Your task to perform on an android device: turn on notifications settings in the gmail app Image 0: 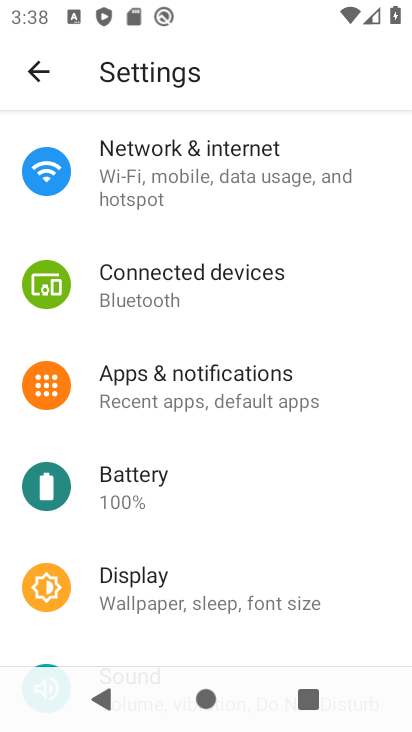
Step 0: drag from (212, 486) to (257, 194)
Your task to perform on an android device: turn on notifications settings in the gmail app Image 1: 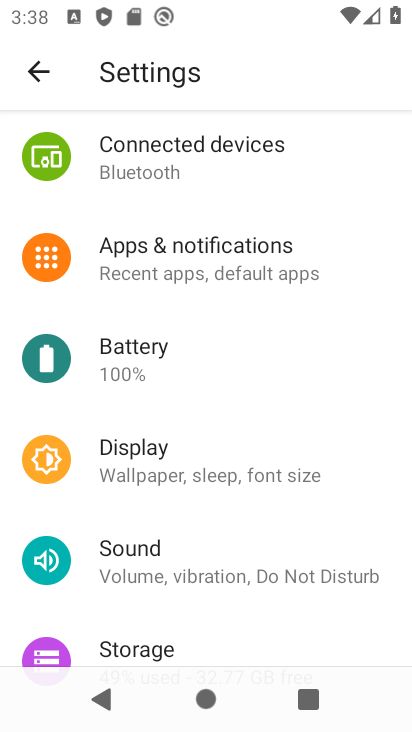
Step 1: press home button
Your task to perform on an android device: turn on notifications settings in the gmail app Image 2: 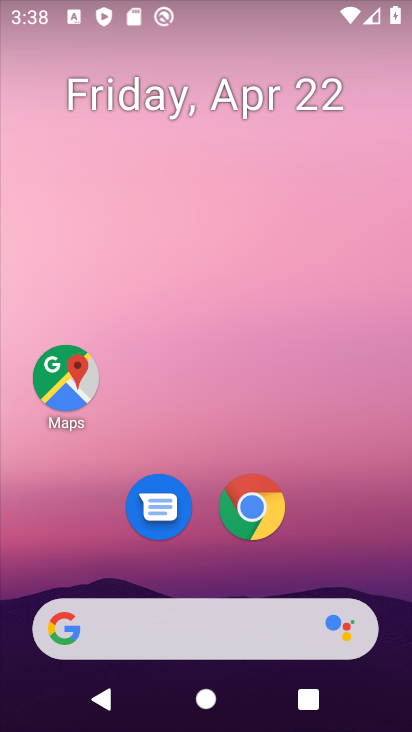
Step 2: drag from (328, 541) to (333, 65)
Your task to perform on an android device: turn on notifications settings in the gmail app Image 3: 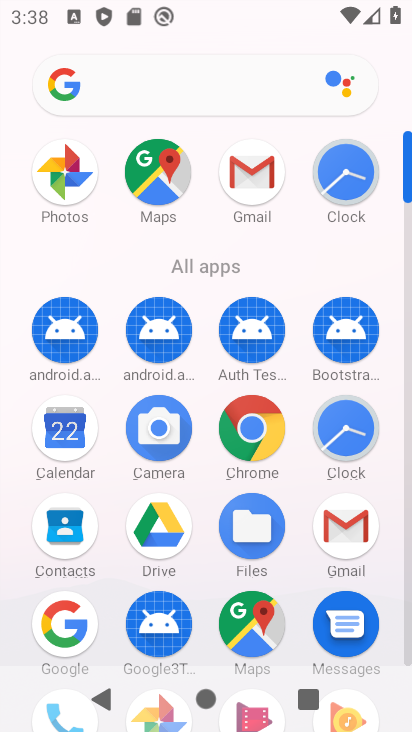
Step 3: click (342, 527)
Your task to perform on an android device: turn on notifications settings in the gmail app Image 4: 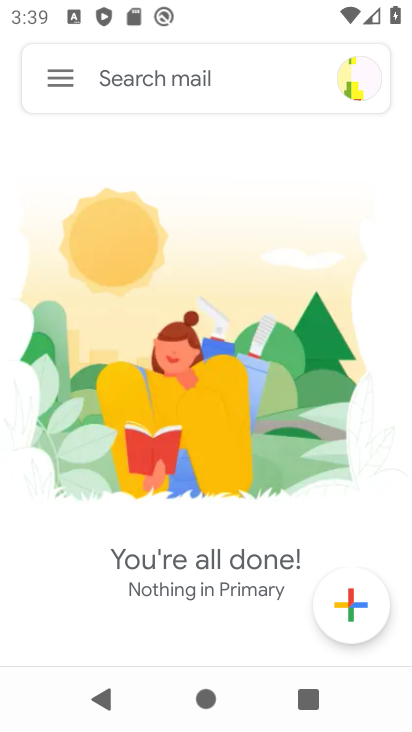
Step 4: click (58, 79)
Your task to perform on an android device: turn on notifications settings in the gmail app Image 5: 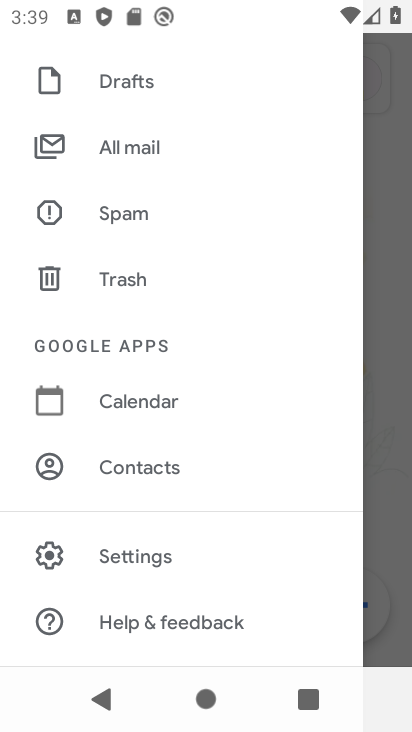
Step 5: click (125, 558)
Your task to perform on an android device: turn on notifications settings in the gmail app Image 6: 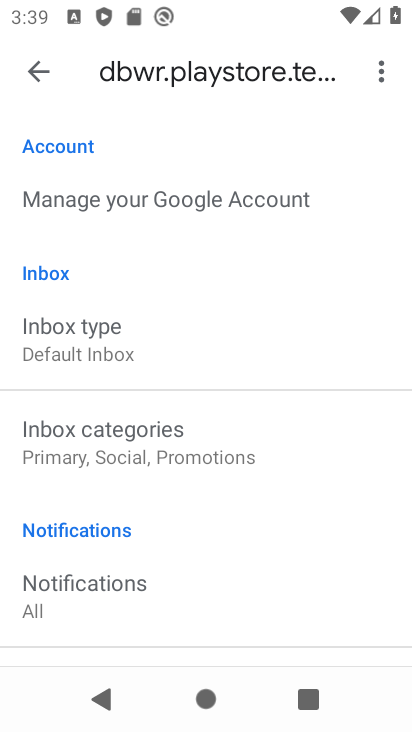
Step 6: drag from (214, 504) to (228, 269)
Your task to perform on an android device: turn on notifications settings in the gmail app Image 7: 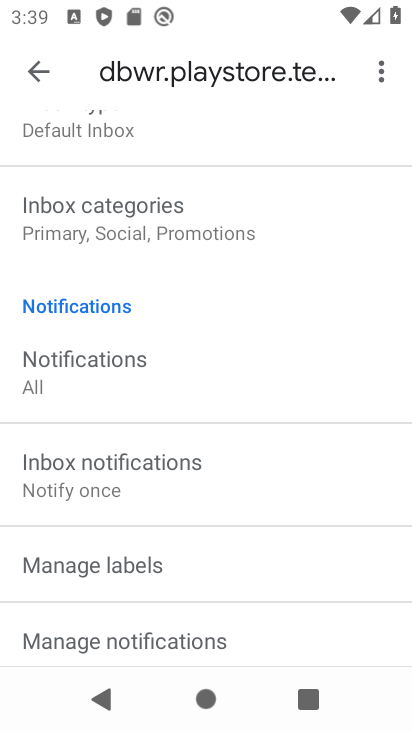
Step 7: click (109, 375)
Your task to perform on an android device: turn on notifications settings in the gmail app Image 8: 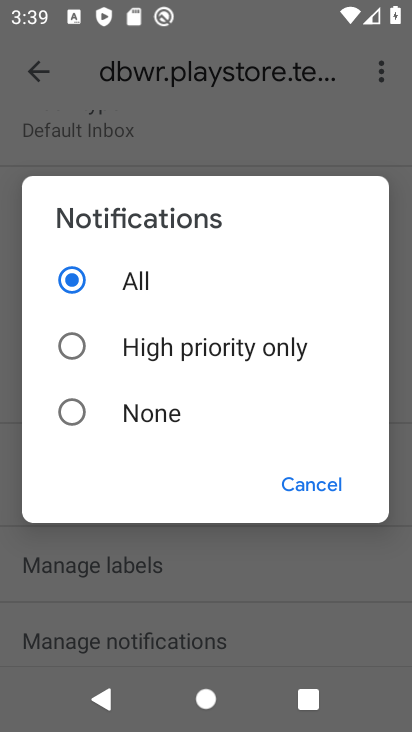
Step 8: click (64, 352)
Your task to perform on an android device: turn on notifications settings in the gmail app Image 9: 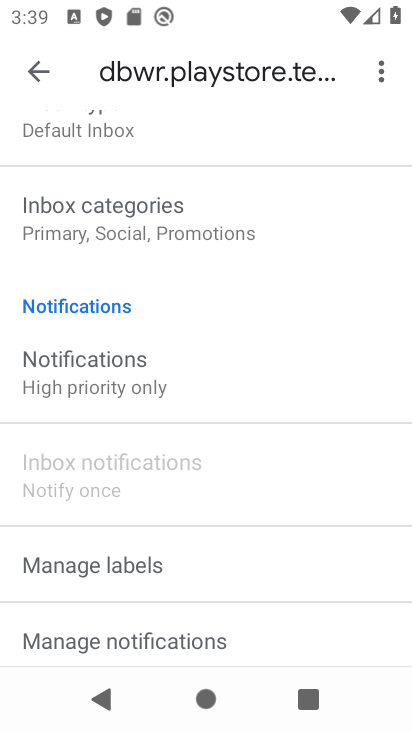
Step 9: task complete